Your task to perform on an android device: Go to display settings Image 0: 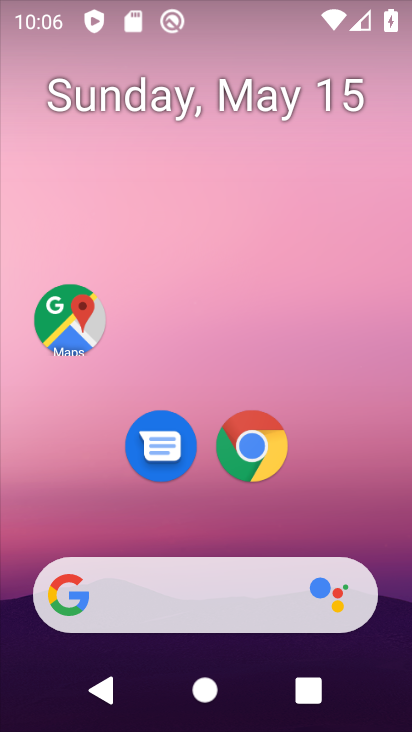
Step 0: drag from (288, 525) to (298, 107)
Your task to perform on an android device: Go to display settings Image 1: 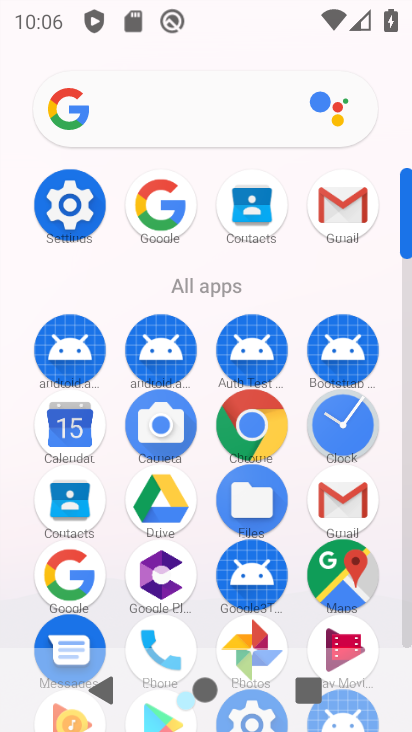
Step 1: click (69, 210)
Your task to perform on an android device: Go to display settings Image 2: 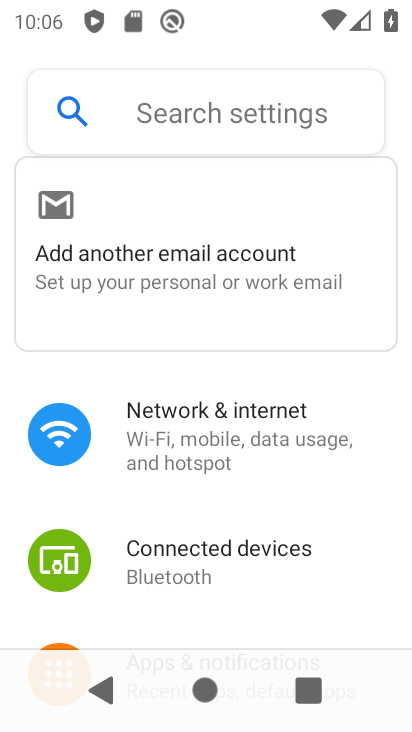
Step 2: drag from (215, 532) to (229, 305)
Your task to perform on an android device: Go to display settings Image 3: 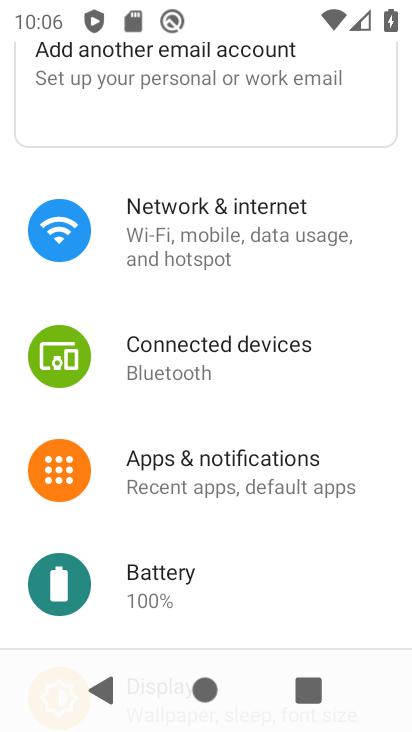
Step 3: drag from (231, 594) to (248, 227)
Your task to perform on an android device: Go to display settings Image 4: 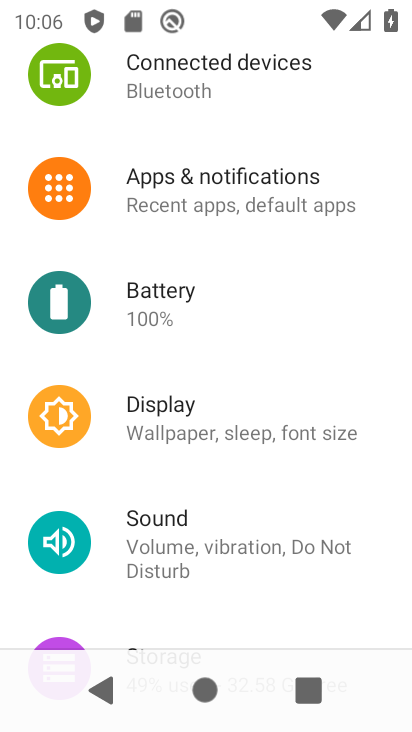
Step 4: click (223, 418)
Your task to perform on an android device: Go to display settings Image 5: 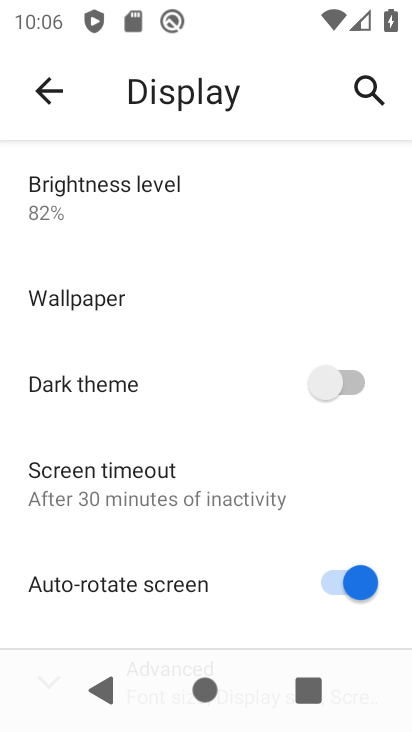
Step 5: task complete